Your task to perform on an android device: Go to display settings Image 0: 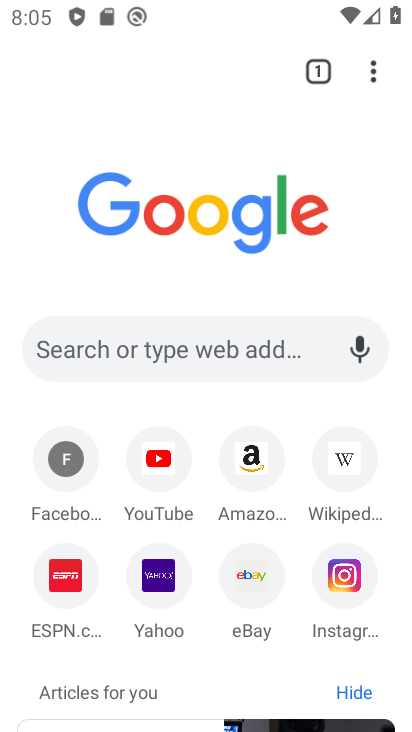
Step 0: press home button
Your task to perform on an android device: Go to display settings Image 1: 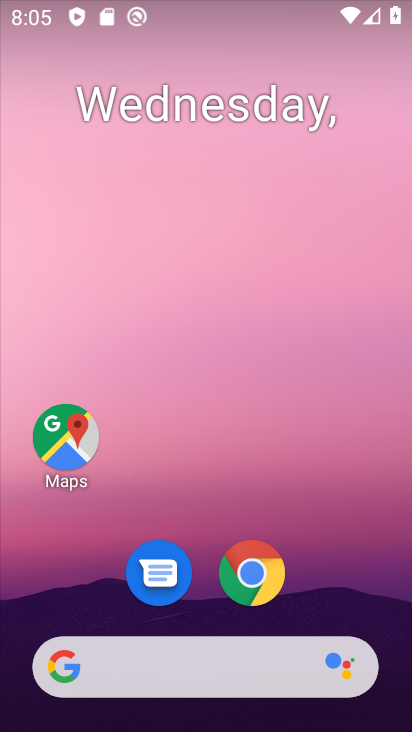
Step 1: drag from (282, 645) to (249, 188)
Your task to perform on an android device: Go to display settings Image 2: 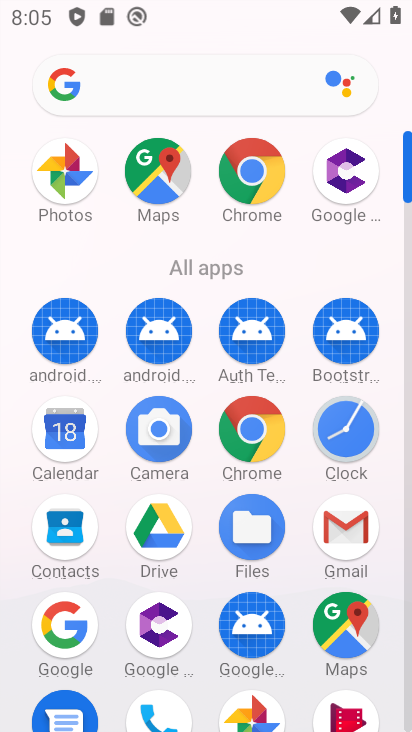
Step 2: drag from (177, 464) to (193, 101)
Your task to perform on an android device: Go to display settings Image 3: 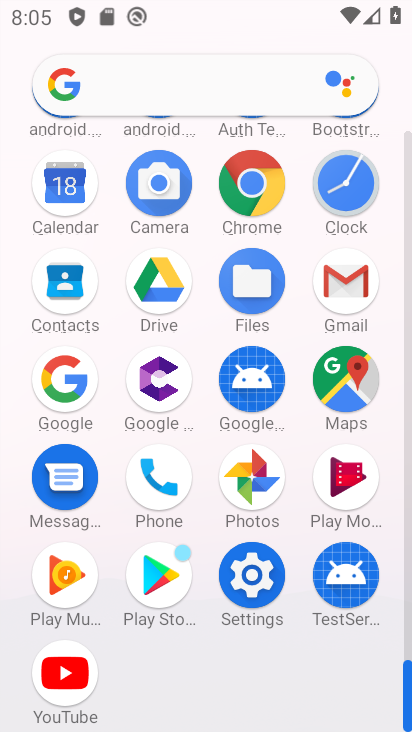
Step 3: click (243, 604)
Your task to perform on an android device: Go to display settings Image 4: 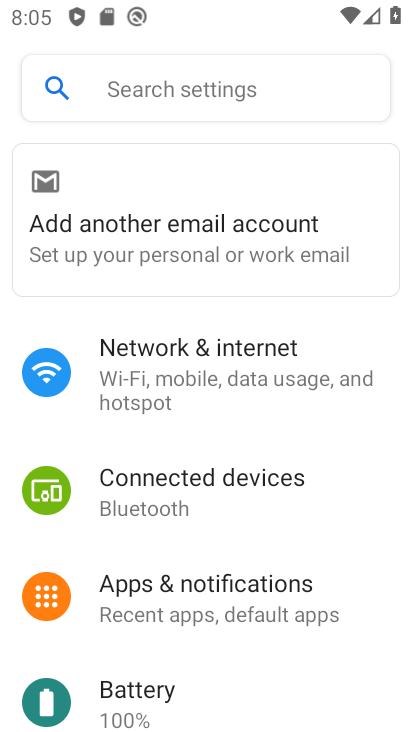
Step 4: drag from (200, 579) to (283, 222)
Your task to perform on an android device: Go to display settings Image 5: 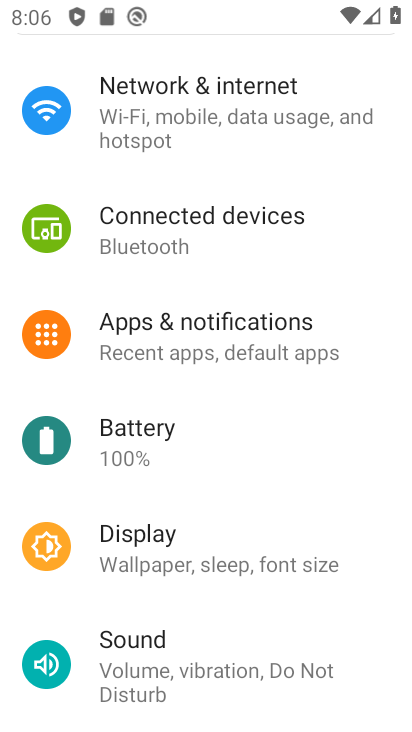
Step 5: click (260, 528)
Your task to perform on an android device: Go to display settings Image 6: 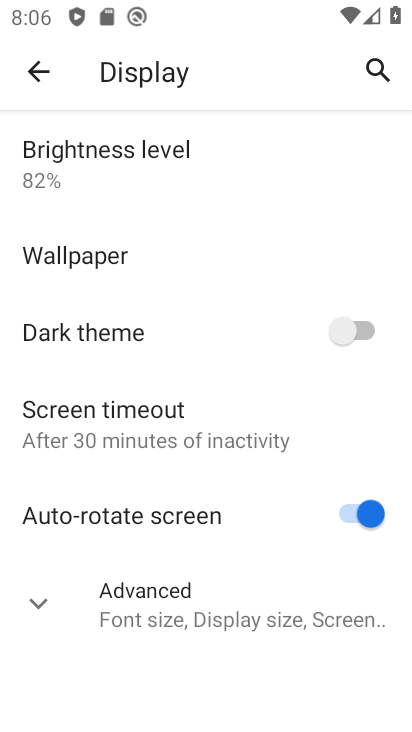
Step 6: task complete